Your task to perform on an android device: Go to location settings Image 0: 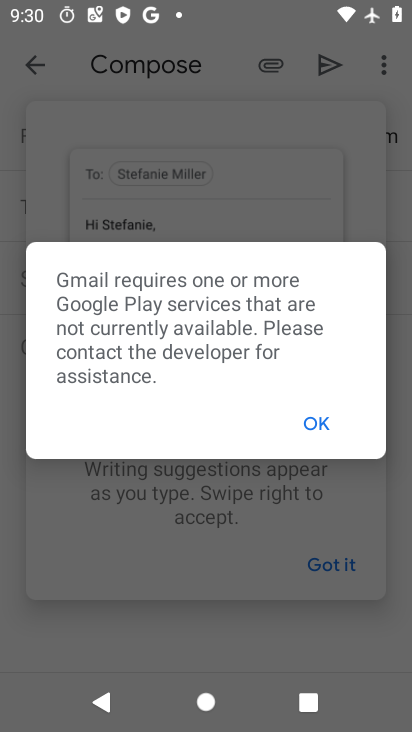
Step 0: press home button
Your task to perform on an android device: Go to location settings Image 1: 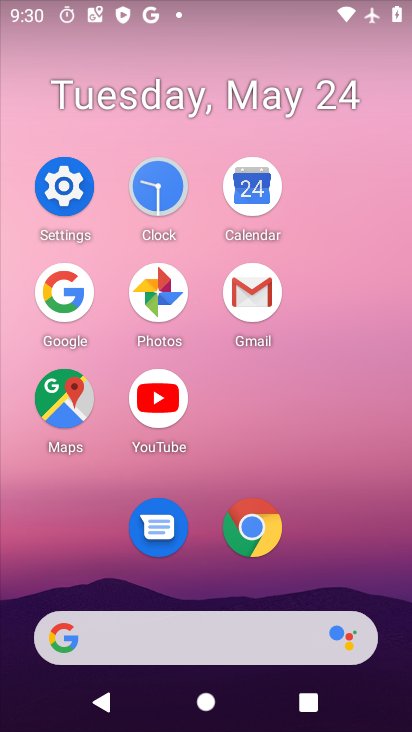
Step 1: click (75, 175)
Your task to perform on an android device: Go to location settings Image 2: 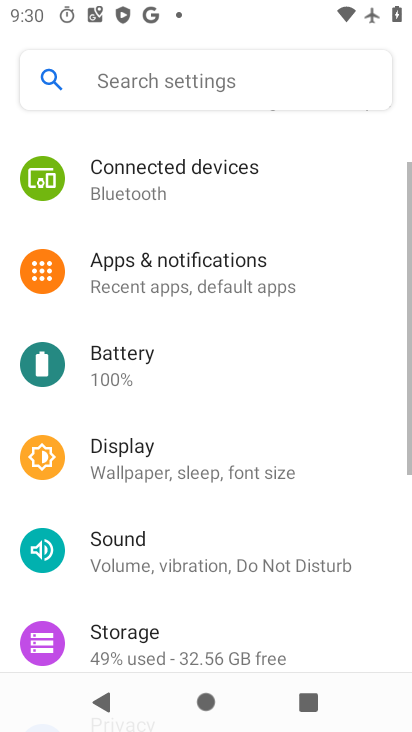
Step 2: drag from (202, 570) to (224, 184)
Your task to perform on an android device: Go to location settings Image 3: 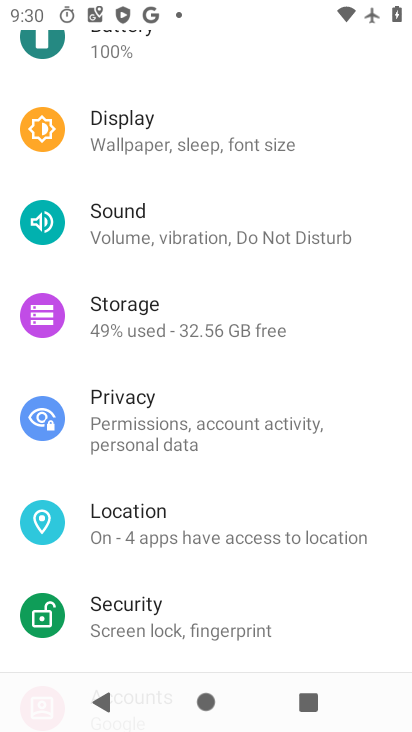
Step 3: click (233, 508)
Your task to perform on an android device: Go to location settings Image 4: 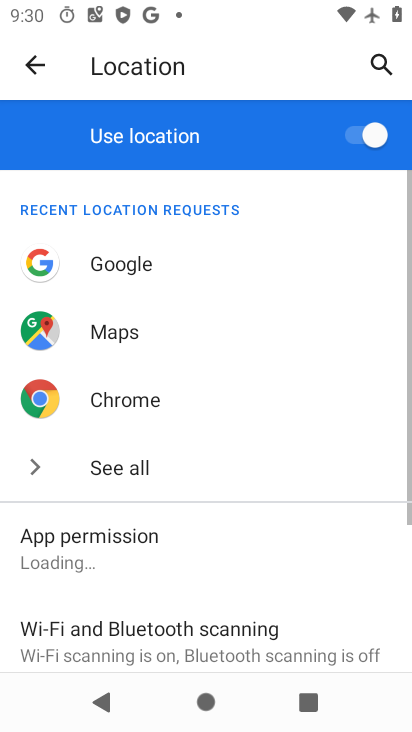
Step 4: task complete